Your task to perform on an android device: turn on translation in the chrome app Image 0: 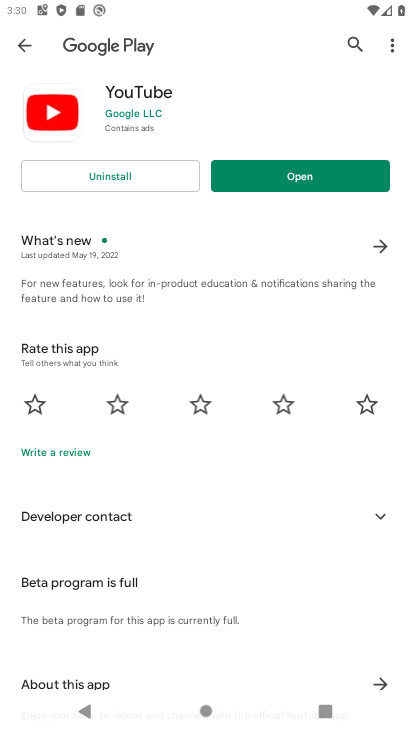
Step 0: press home button
Your task to perform on an android device: turn on translation in the chrome app Image 1: 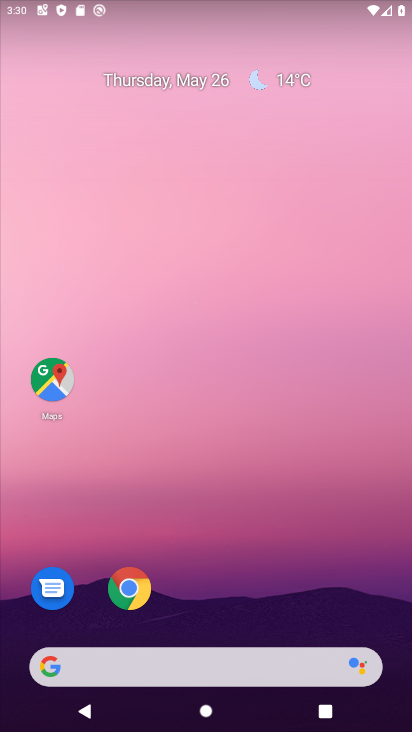
Step 1: click (135, 587)
Your task to perform on an android device: turn on translation in the chrome app Image 2: 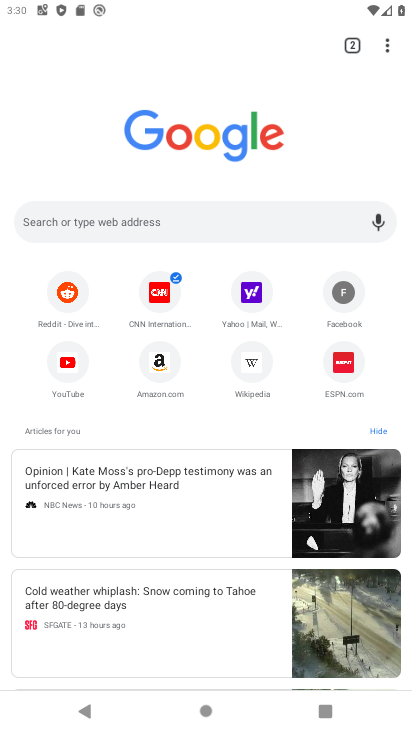
Step 2: click (387, 41)
Your task to perform on an android device: turn on translation in the chrome app Image 3: 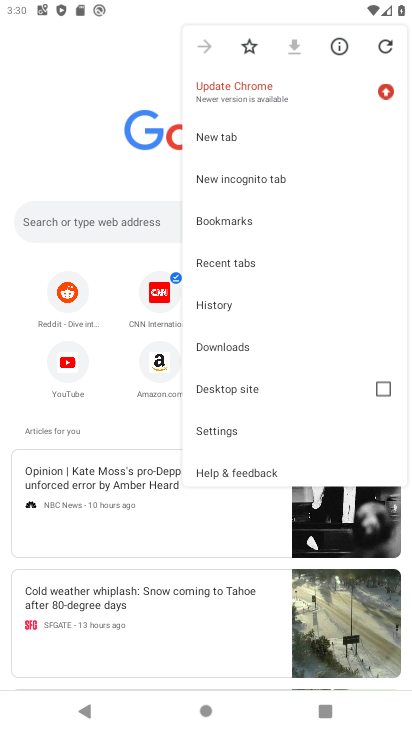
Step 3: click (217, 421)
Your task to perform on an android device: turn on translation in the chrome app Image 4: 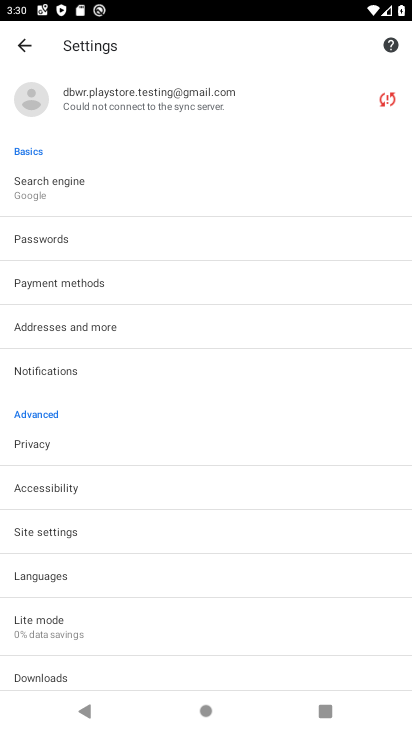
Step 4: click (150, 562)
Your task to perform on an android device: turn on translation in the chrome app Image 5: 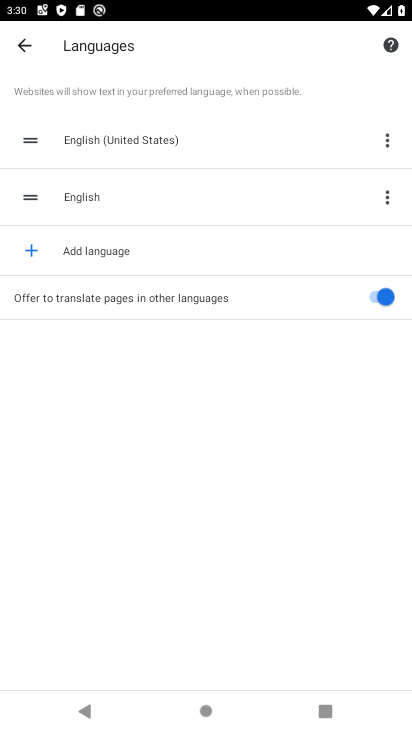
Step 5: click (339, 294)
Your task to perform on an android device: turn on translation in the chrome app Image 6: 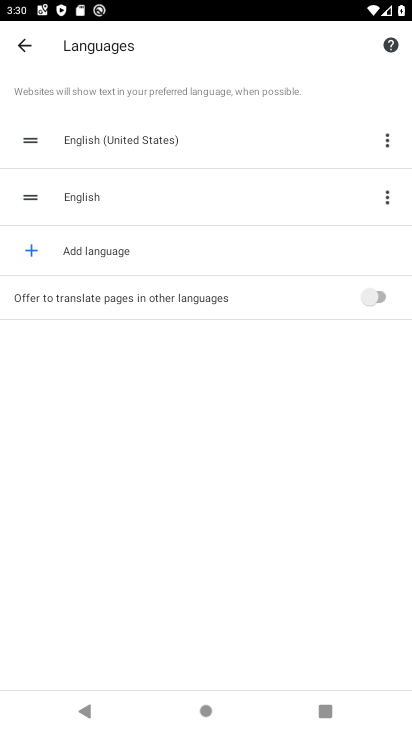
Step 6: click (365, 309)
Your task to perform on an android device: turn on translation in the chrome app Image 7: 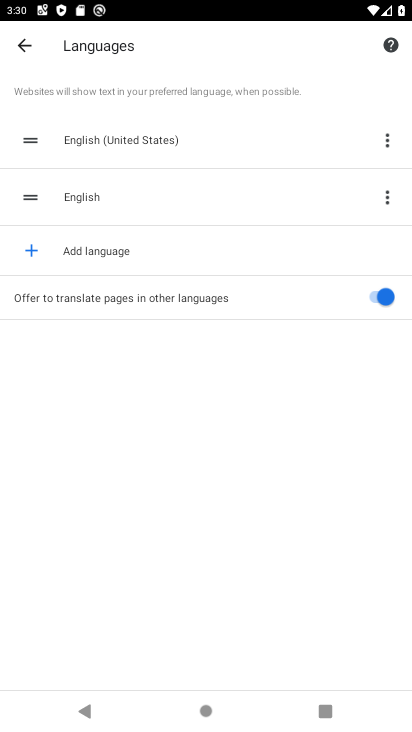
Step 7: task complete